Your task to perform on an android device: turn on the 24-hour format for clock Image 0: 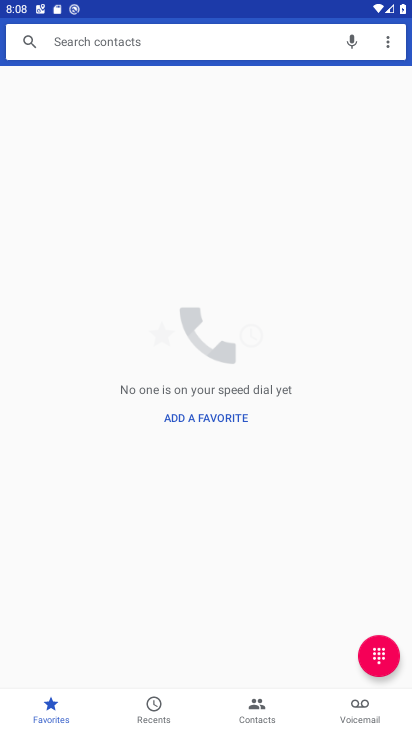
Step 0: press home button
Your task to perform on an android device: turn on the 24-hour format for clock Image 1: 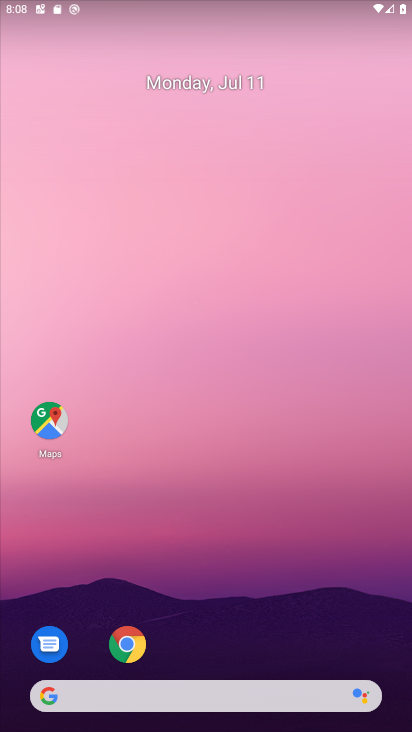
Step 1: drag from (179, 642) to (185, 185)
Your task to perform on an android device: turn on the 24-hour format for clock Image 2: 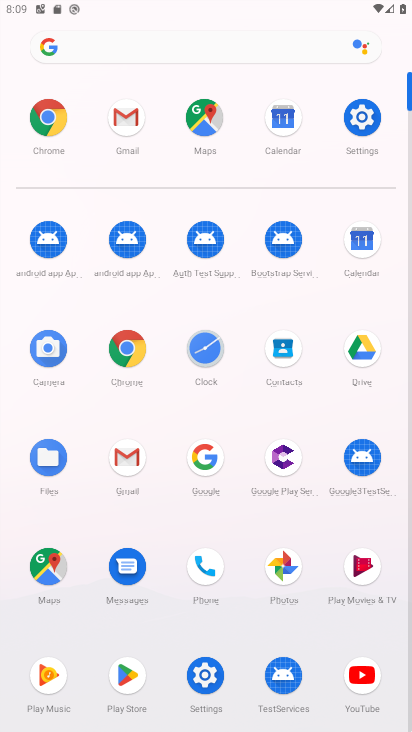
Step 2: click (197, 354)
Your task to perform on an android device: turn on the 24-hour format for clock Image 3: 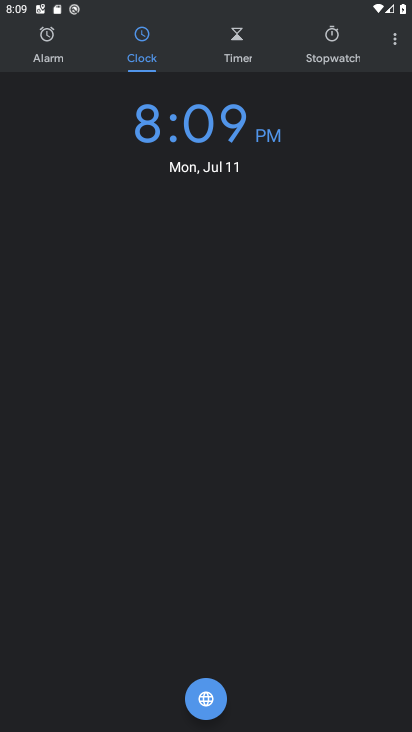
Step 3: click (400, 39)
Your task to perform on an android device: turn on the 24-hour format for clock Image 4: 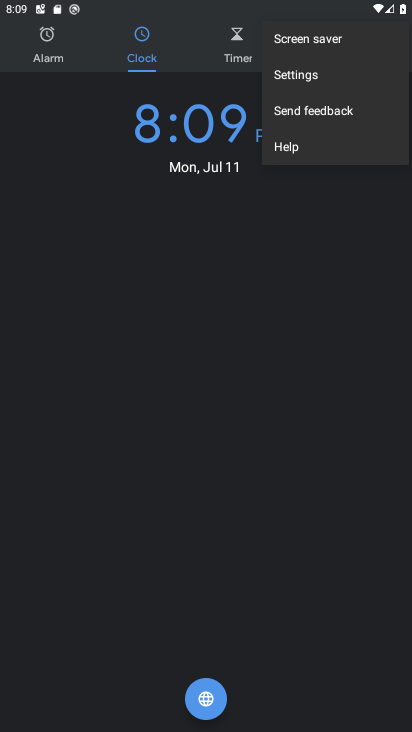
Step 4: click (313, 74)
Your task to perform on an android device: turn on the 24-hour format for clock Image 5: 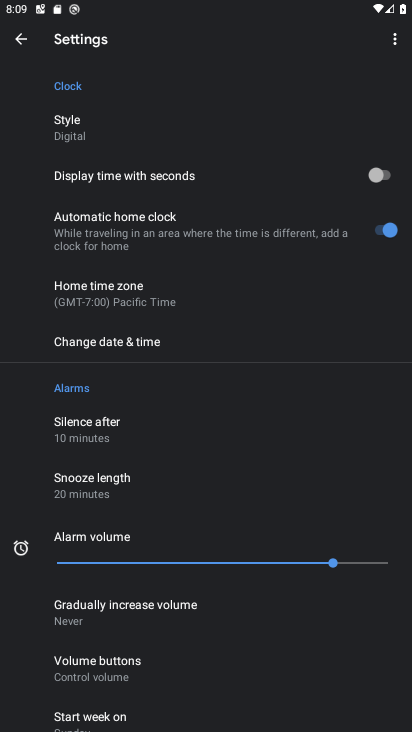
Step 5: click (155, 341)
Your task to perform on an android device: turn on the 24-hour format for clock Image 6: 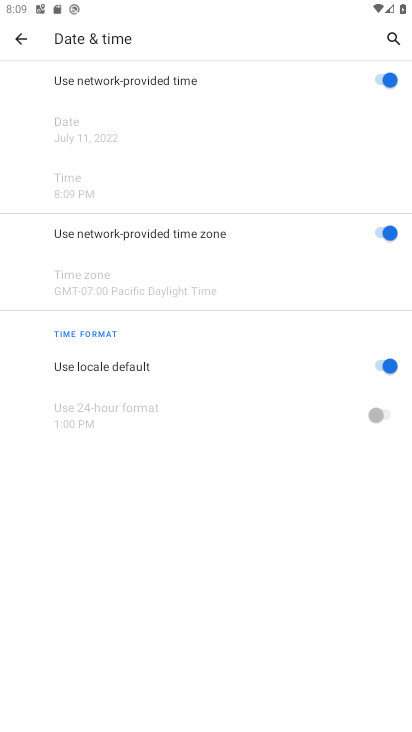
Step 6: click (374, 362)
Your task to perform on an android device: turn on the 24-hour format for clock Image 7: 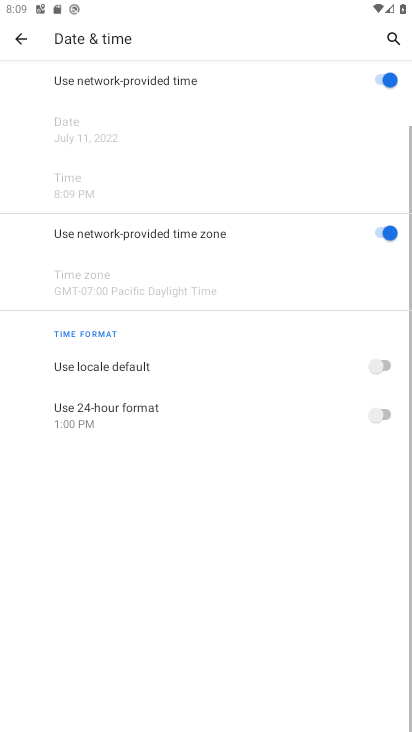
Step 7: click (372, 413)
Your task to perform on an android device: turn on the 24-hour format for clock Image 8: 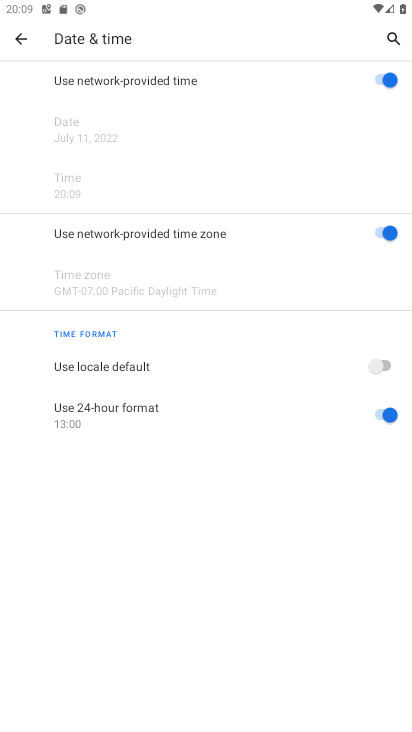
Step 8: task complete